Your task to perform on an android device: turn off sleep mode Image 0: 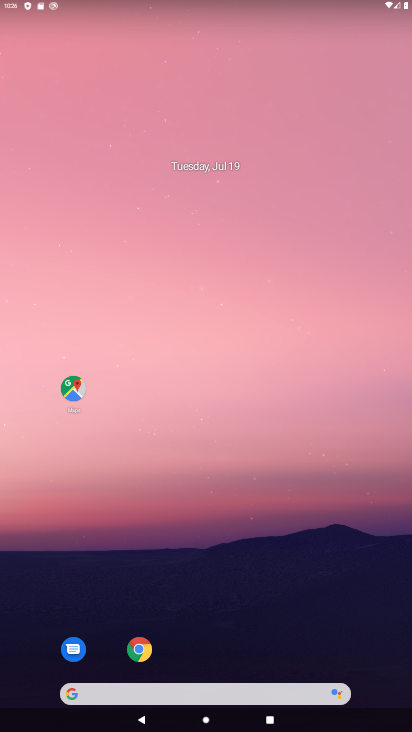
Step 0: drag from (201, 638) to (273, 66)
Your task to perform on an android device: turn off sleep mode Image 1: 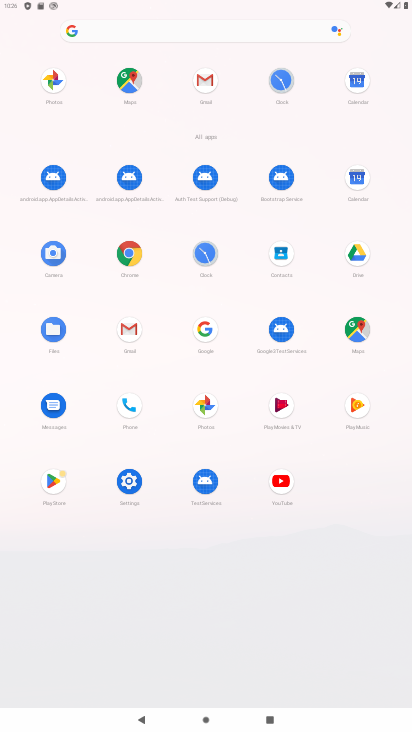
Step 1: click (128, 486)
Your task to perform on an android device: turn off sleep mode Image 2: 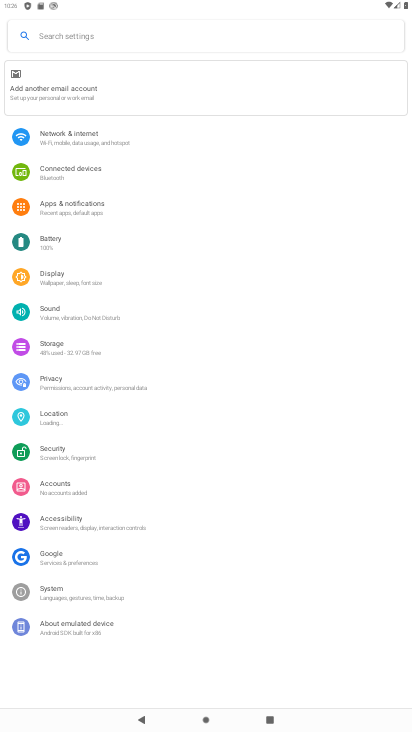
Step 2: click (68, 273)
Your task to perform on an android device: turn off sleep mode Image 3: 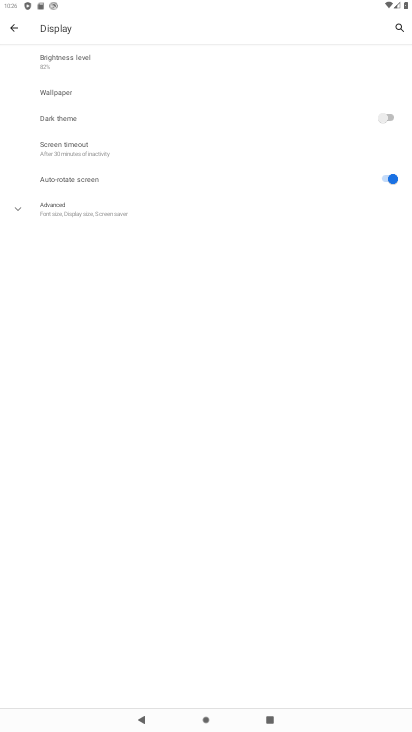
Step 3: click (124, 215)
Your task to perform on an android device: turn off sleep mode Image 4: 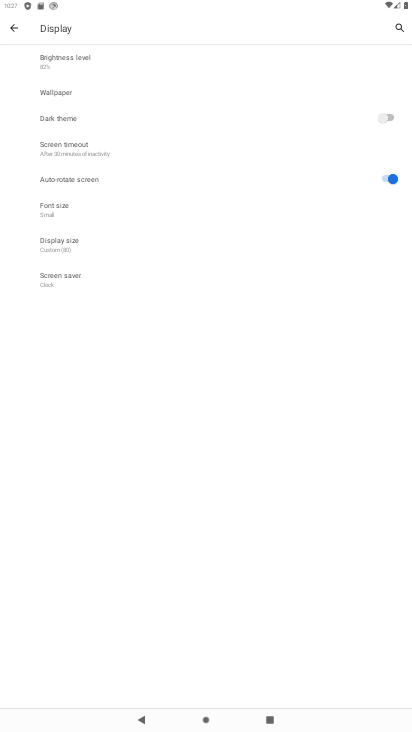
Step 4: task complete